Your task to perform on an android device: toggle priority inbox in the gmail app Image 0: 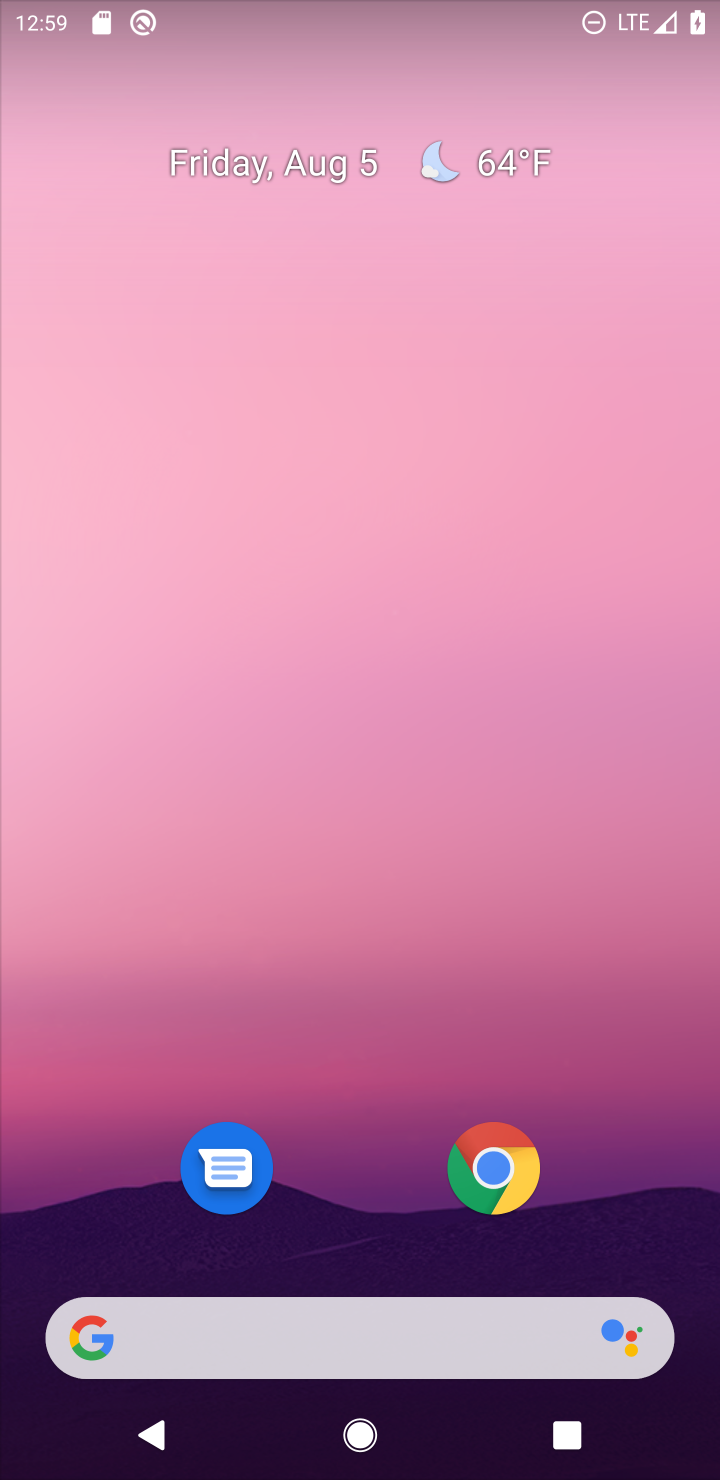
Step 0: drag from (567, 914) to (344, 20)
Your task to perform on an android device: toggle priority inbox in the gmail app Image 1: 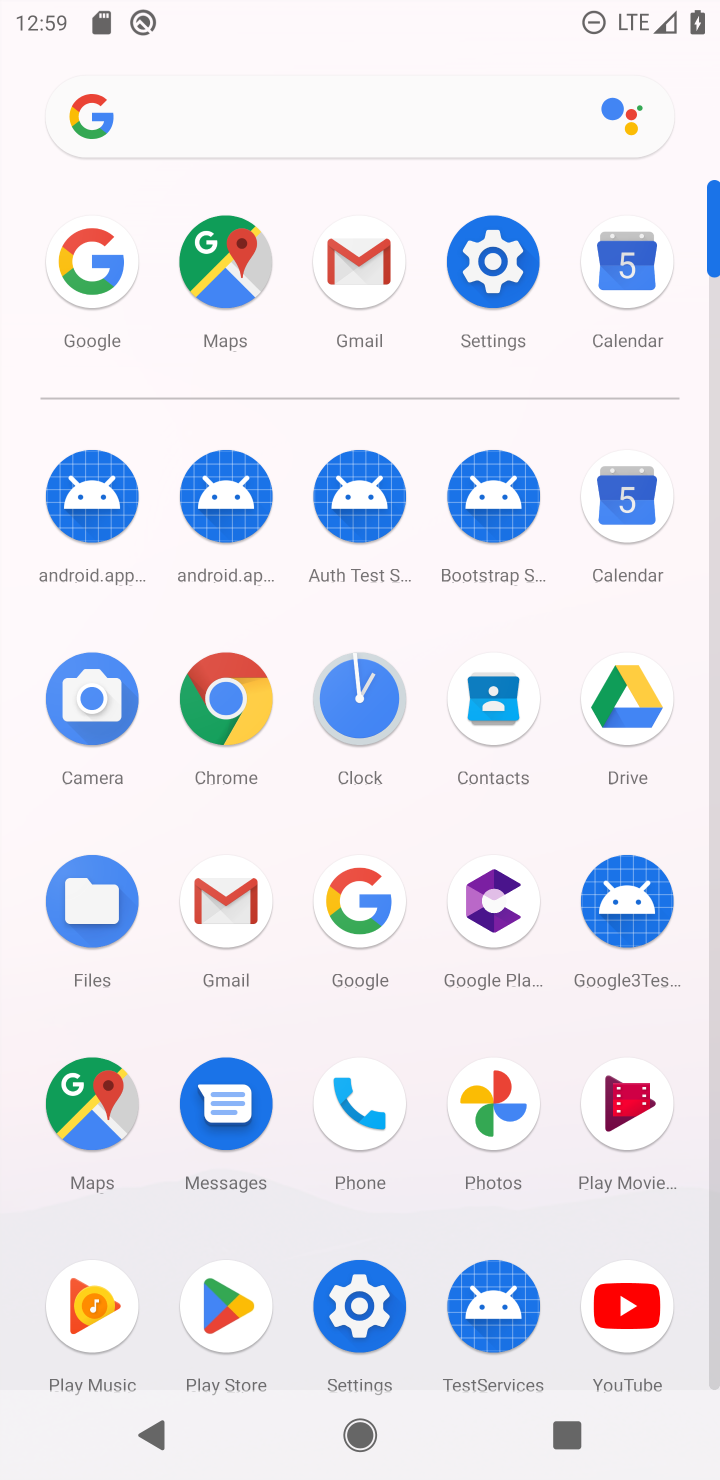
Step 1: click (238, 902)
Your task to perform on an android device: toggle priority inbox in the gmail app Image 2: 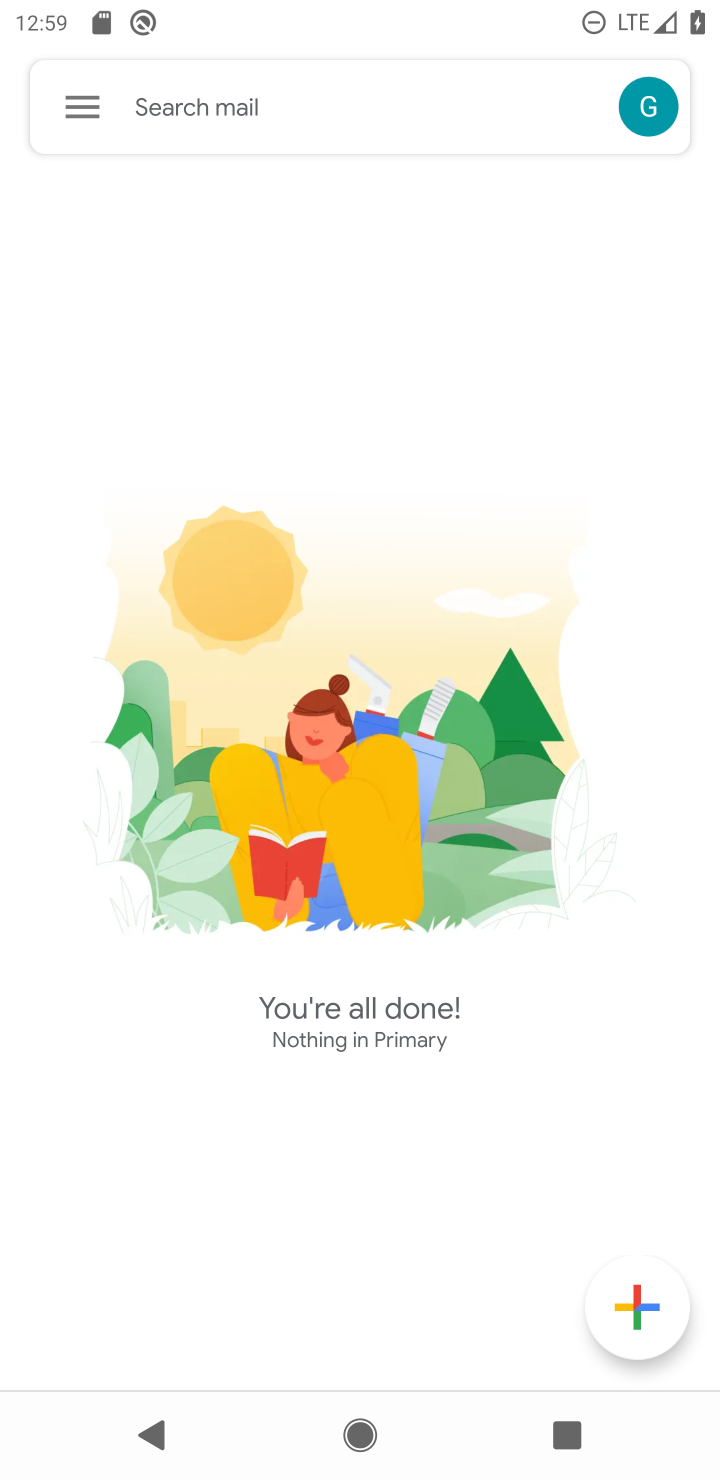
Step 2: click (62, 110)
Your task to perform on an android device: toggle priority inbox in the gmail app Image 3: 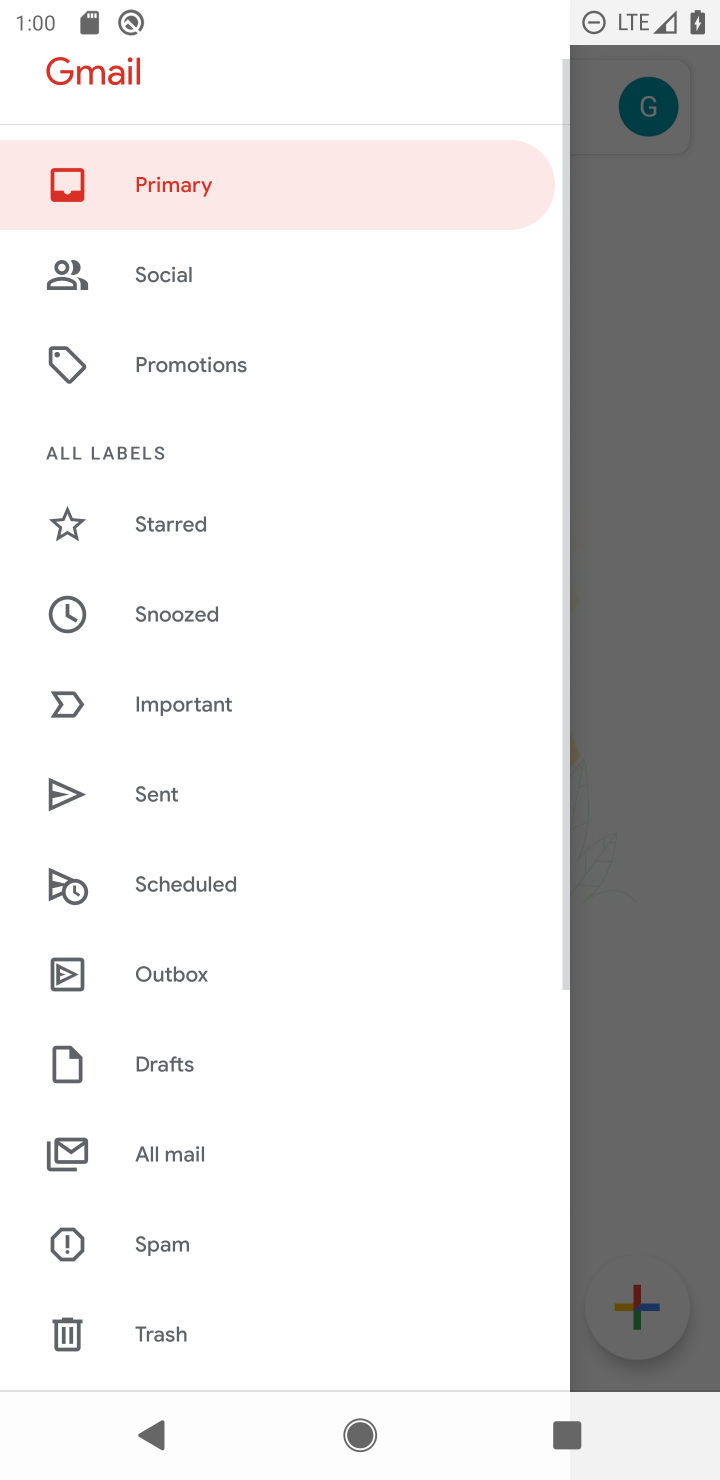
Step 3: drag from (173, 1309) to (361, 105)
Your task to perform on an android device: toggle priority inbox in the gmail app Image 4: 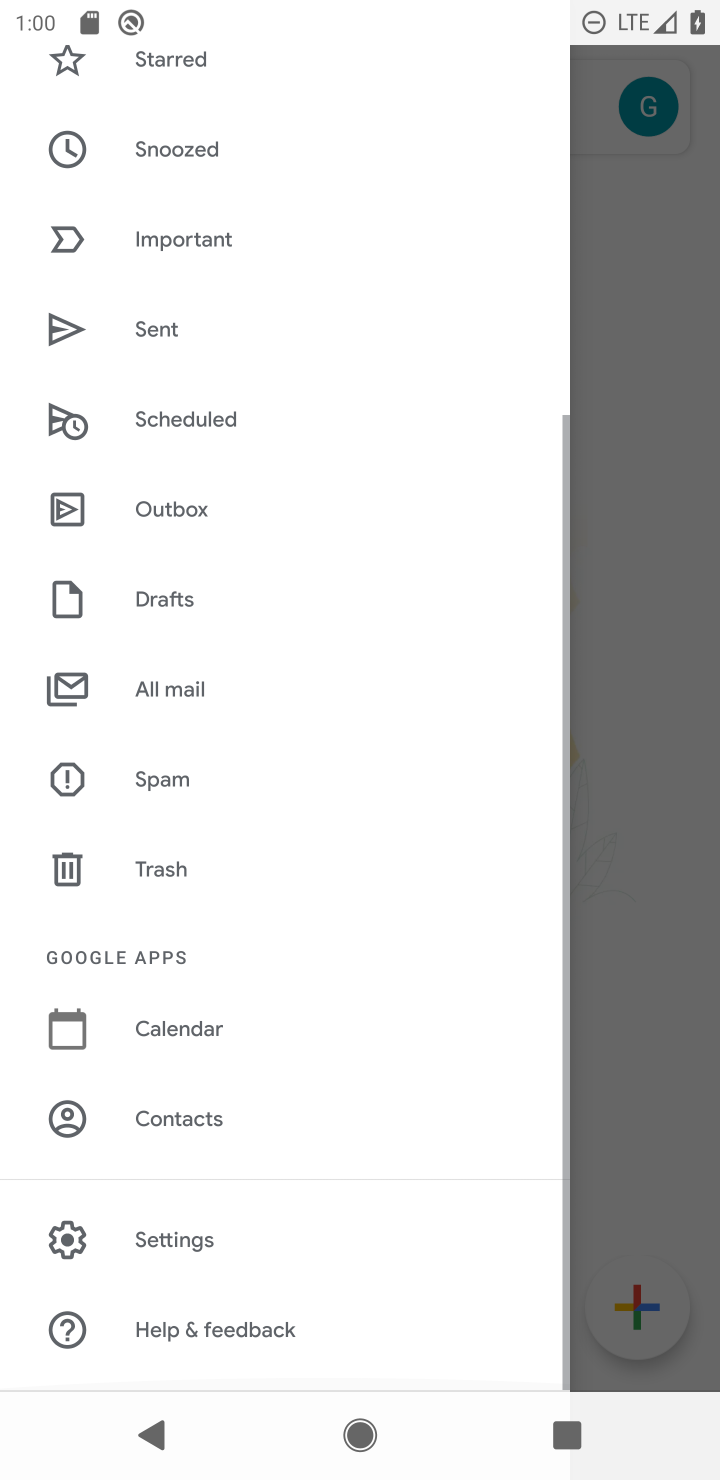
Step 4: click (197, 1259)
Your task to perform on an android device: toggle priority inbox in the gmail app Image 5: 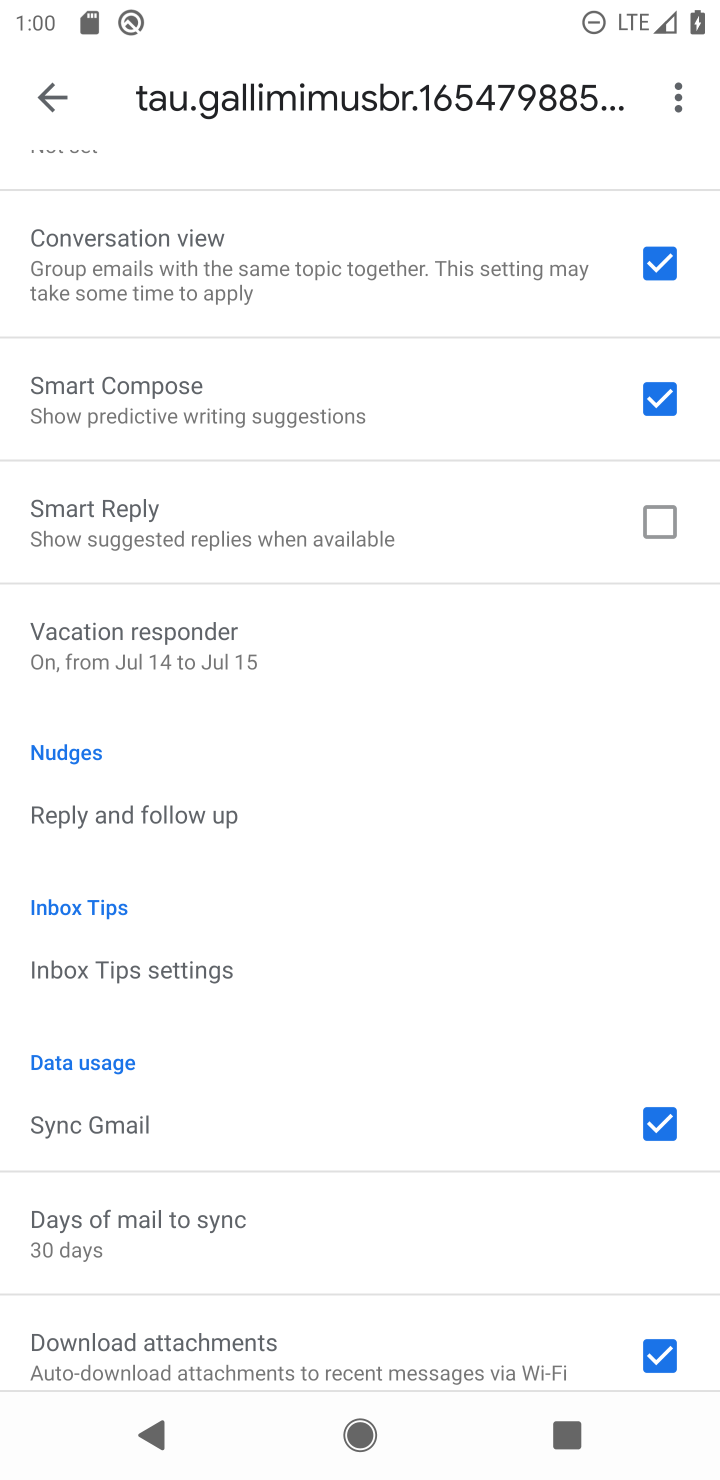
Step 5: drag from (351, 436) to (274, 1454)
Your task to perform on an android device: toggle priority inbox in the gmail app Image 6: 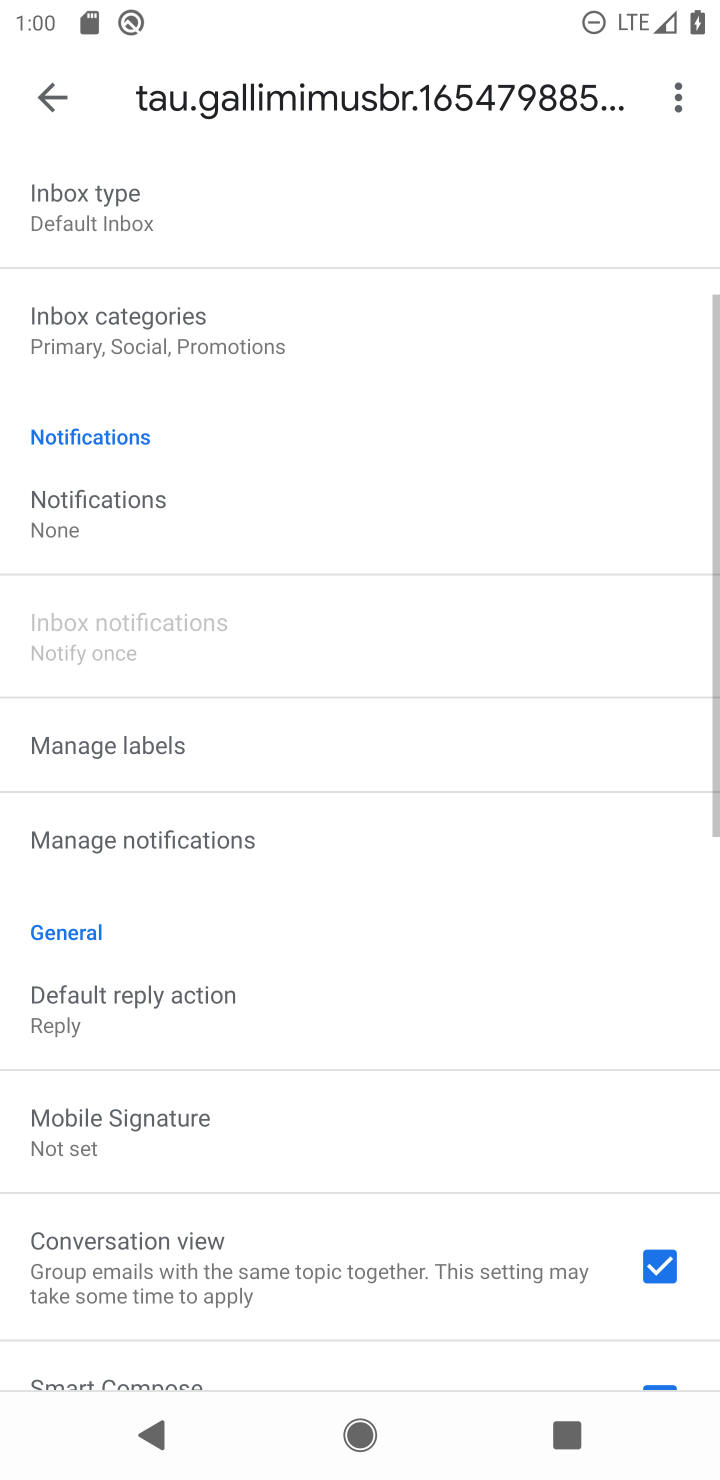
Step 6: drag from (295, 280) to (304, 1411)
Your task to perform on an android device: toggle priority inbox in the gmail app Image 7: 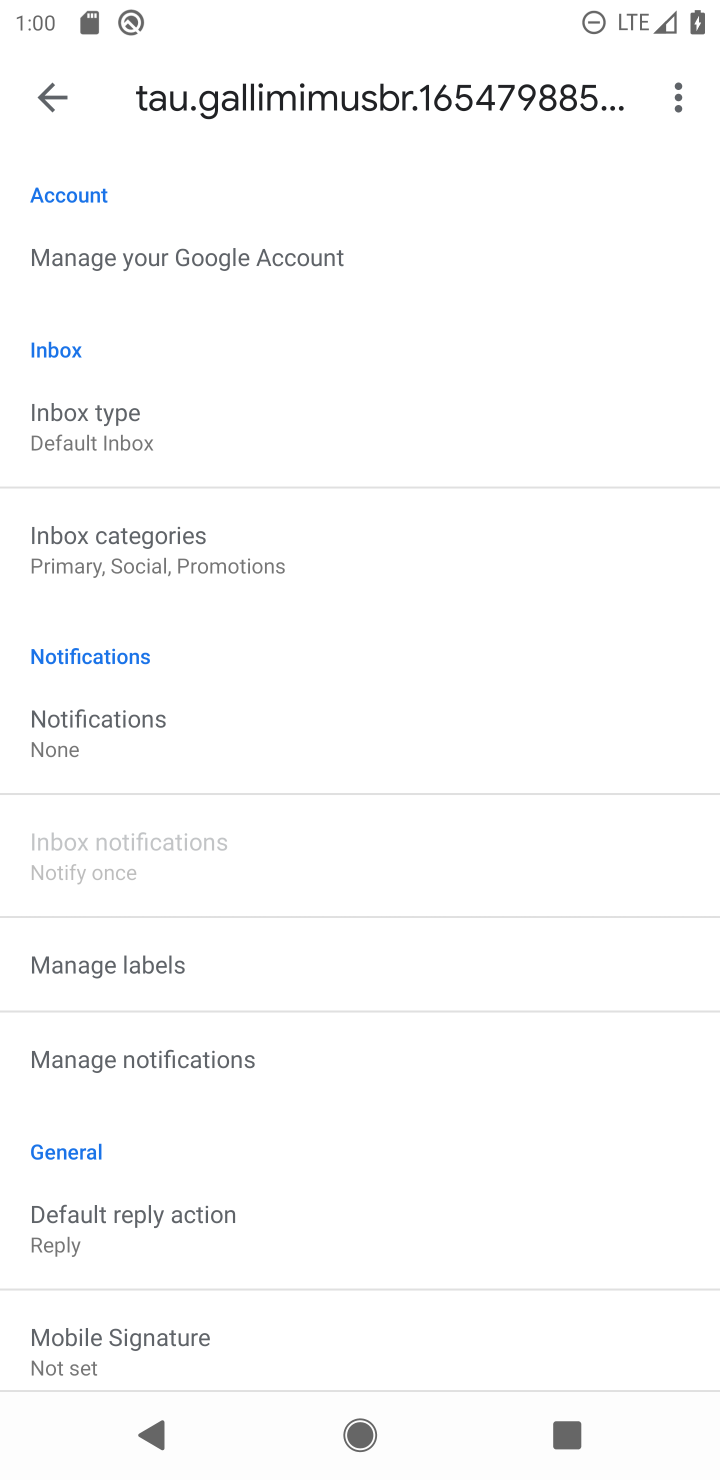
Step 7: click (133, 400)
Your task to perform on an android device: toggle priority inbox in the gmail app Image 8: 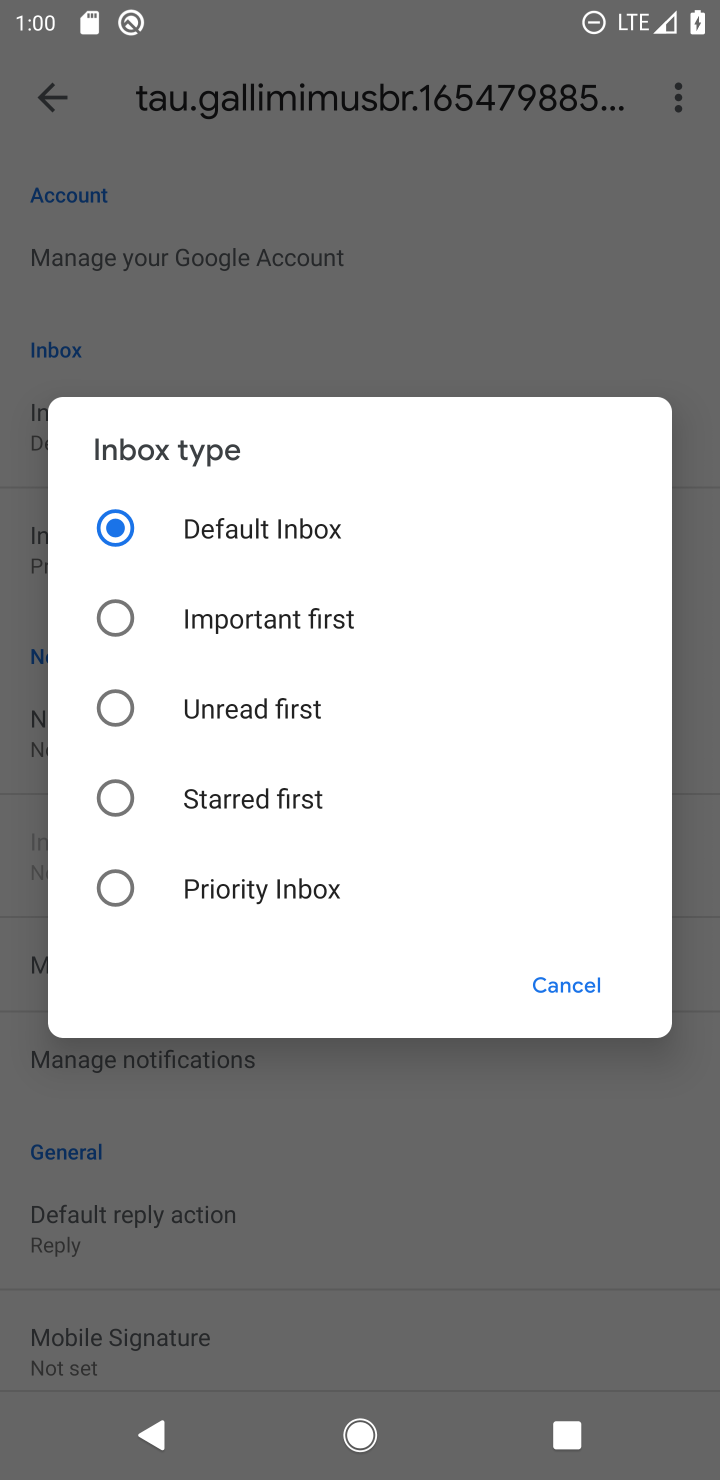
Step 8: click (102, 812)
Your task to perform on an android device: toggle priority inbox in the gmail app Image 9: 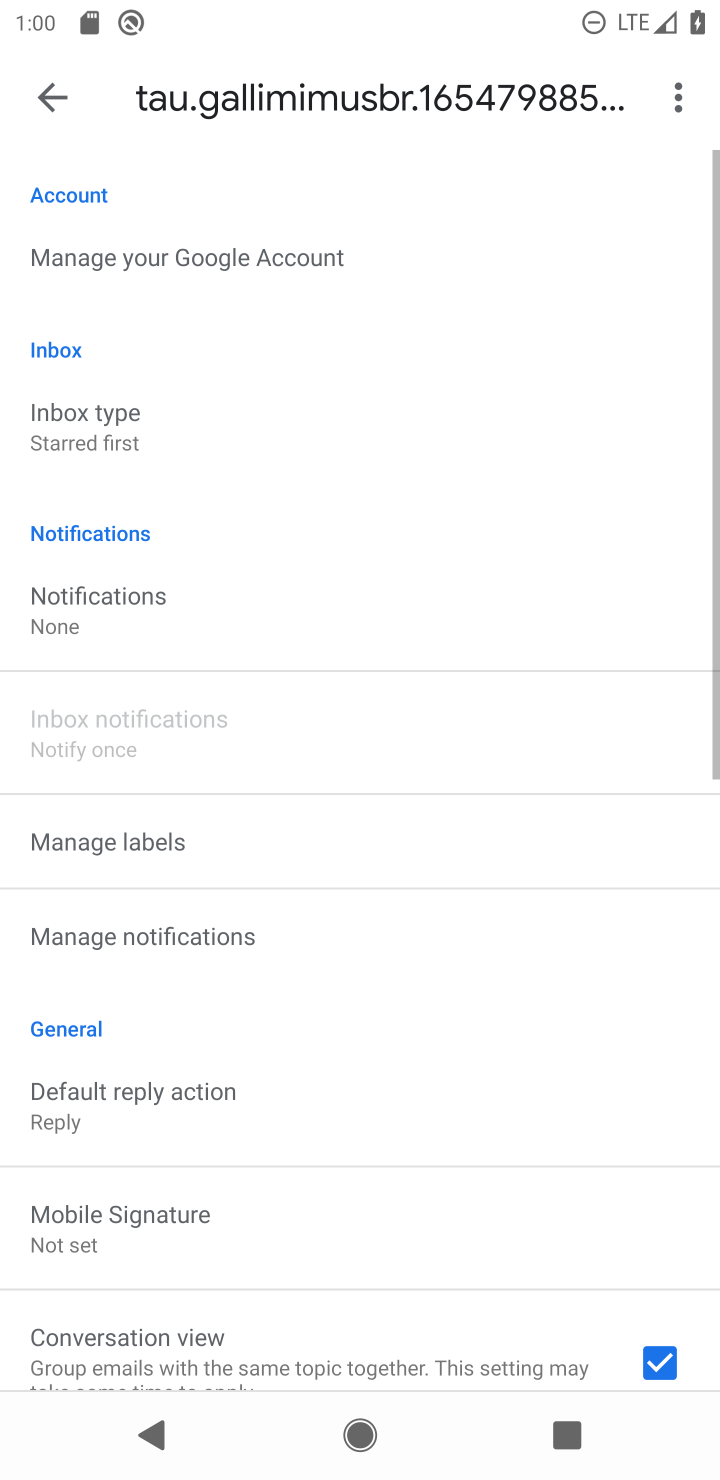
Step 9: task complete